Your task to perform on an android device: move an email to a new category in the gmail app Image 0: 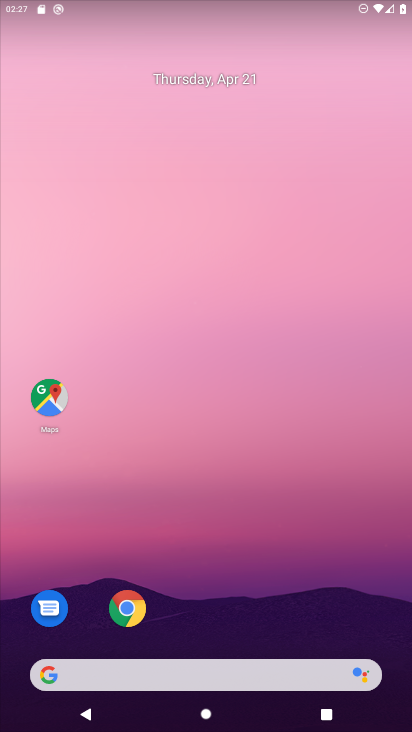
Step 0: drag from (203, 666) to (299, 188)
Your task to perform on an android device: move an email to a new category in the gmail app Image 1: 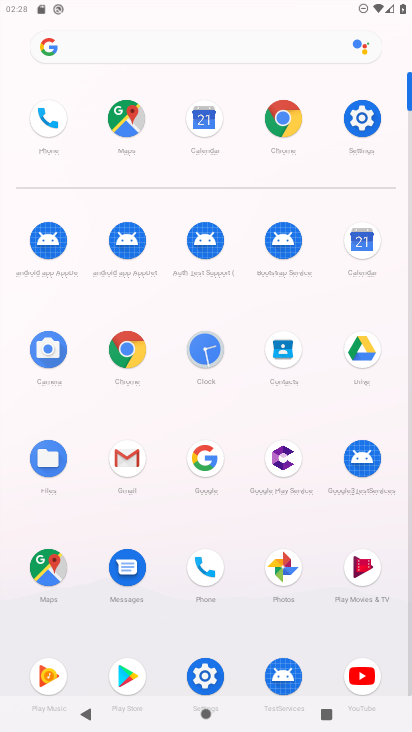
Step 1: click (129, 448)
Your task to perform on an android device: move an email to a new category in the gmail app Image 2: 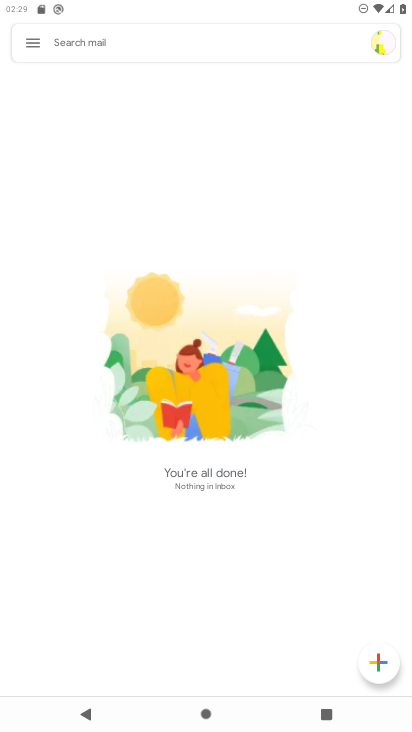
Step 2: click (28, 42)
Your task to perform on an android device: move an email to a new category in the gmail app Image 3: 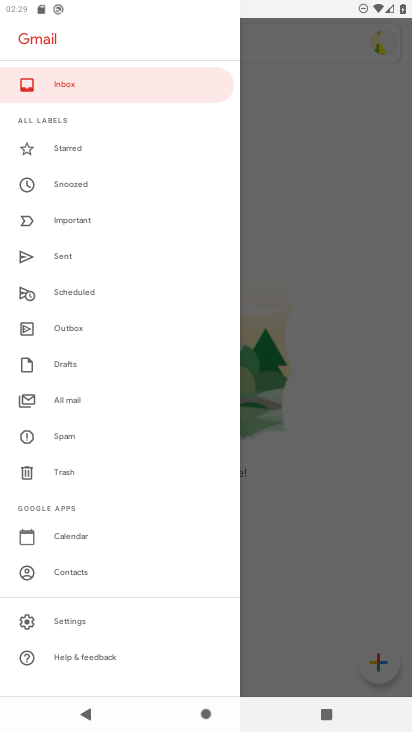
Step 3: click (89, 404)
Your task to perform on an android device: move an email to a new category in the gmail app Image 4: 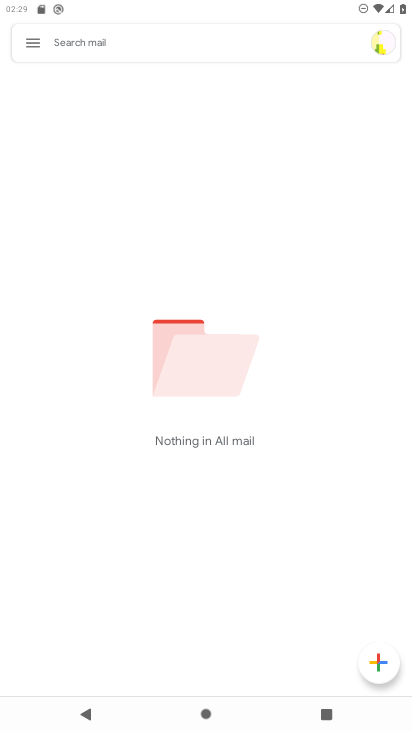
Step 4: task complete